Your task to perform on an android device: Go to eBay Image 0: 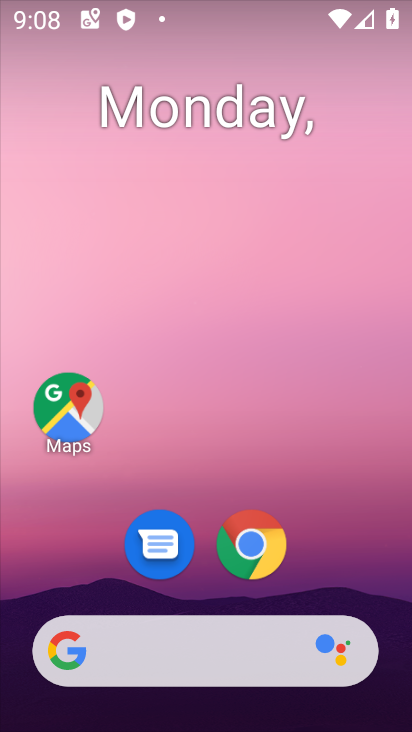
Step 0: click (250, 542)
Your task to perform on an android device: Go to eBay Image 1: 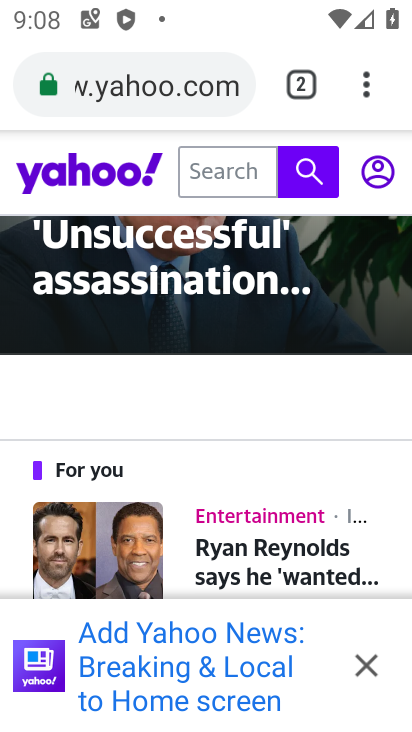
Step 1: click (367, 80)
Your task to perform on an android device: Go to eBay Image 2: 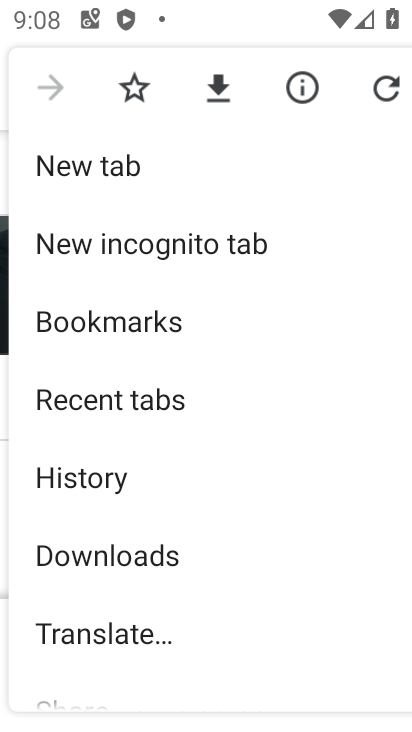
Step 2: click (114, 167)
Your task to perform on an android device: Go to eBay Image 3: 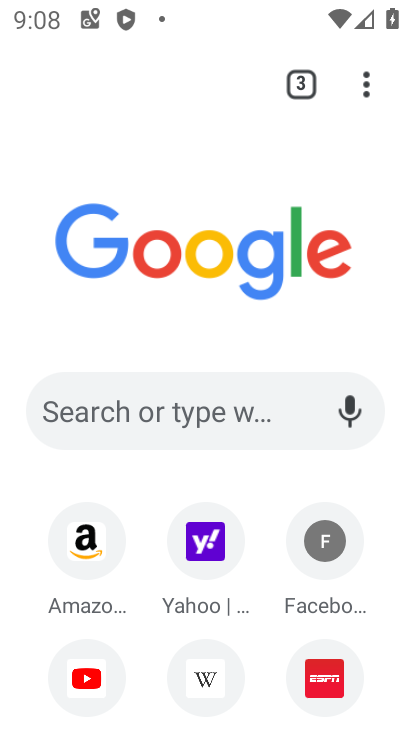
Step 3: click (186, 417)
Your task to perform on an android device: Go to eBay Image 4: 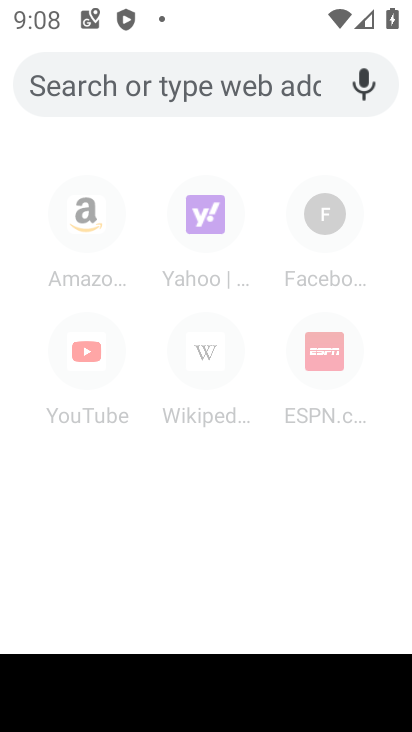
Step 4: type "ebay"
Your task to perform on an android device: Go to eBay Image 5: 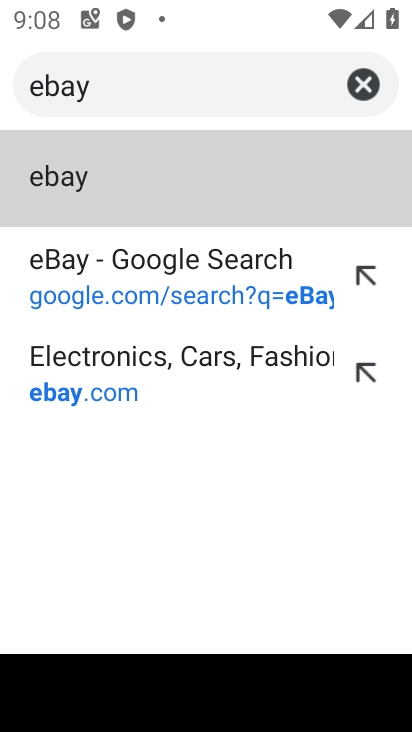
Step 5: click (117, 265)
Your task to perform on an android device: Go to eBay Image 6: 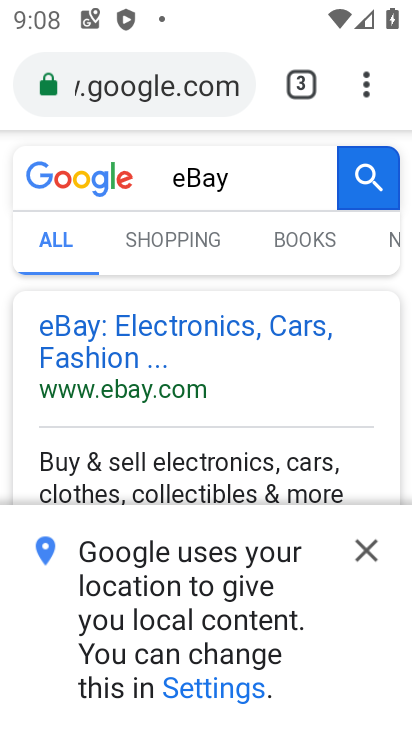
Step 6: task complete